Your task to perform on an android device: toggle priority inbox in the gmail app Image 0: 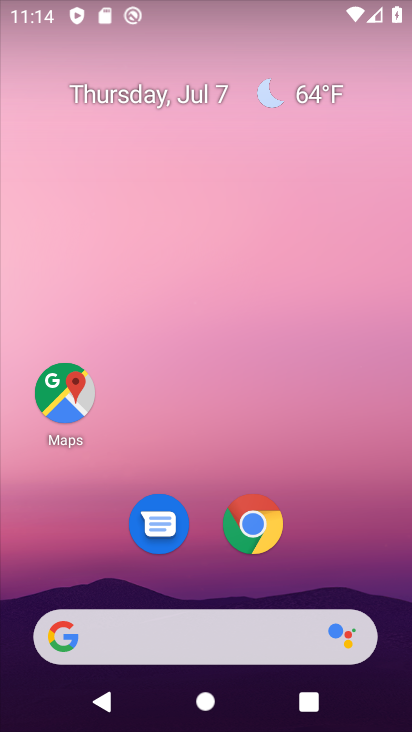
Step 0: drag from (191, 459) to (220, 8)
Your task to perform on an android device: toggle priority inbox in the gmail app Image 1: 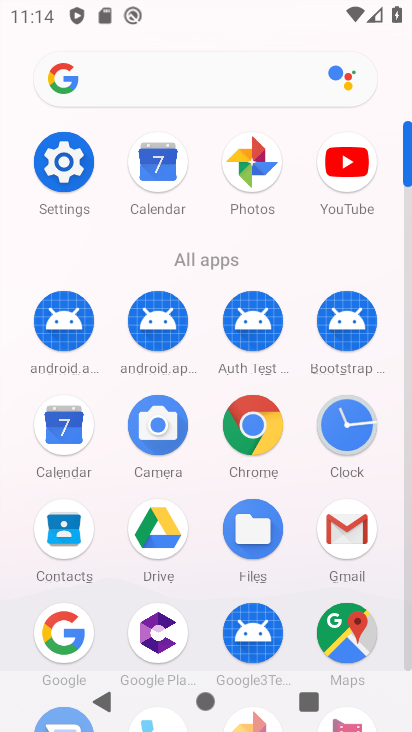
Step 1: click (339, 520)
Your task to perform on an android device: toggle priority inbox in the gmail app Image 2: 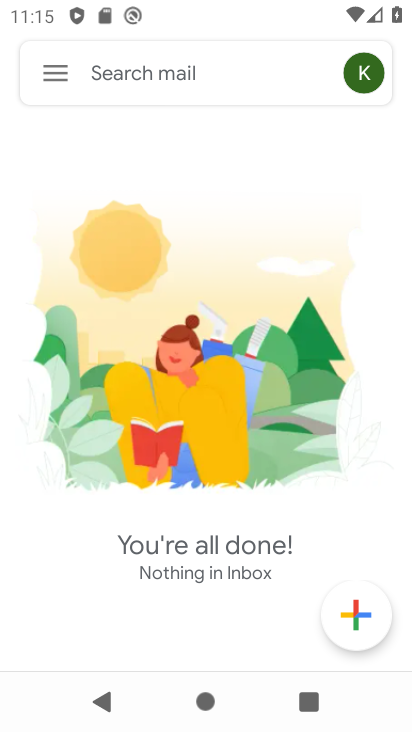
Step 2: click (52, 80)
Your task to perform on an android device: toggle priority inbox in the gmail app Image 3: 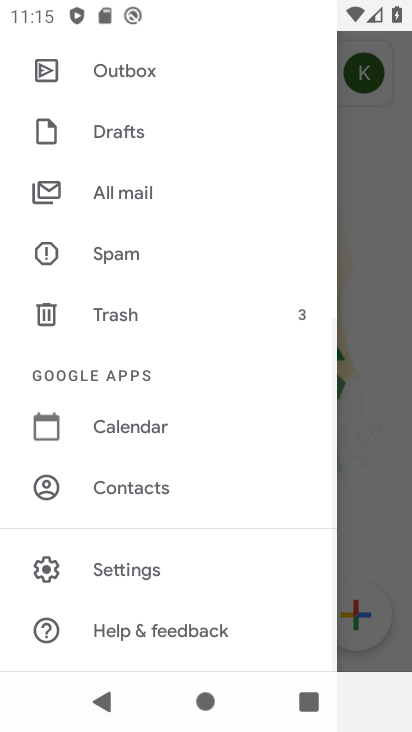
Step 3: click (127, 570)
Your task to perform on an android device: toggle priority inbox in the gmail app Image 4: 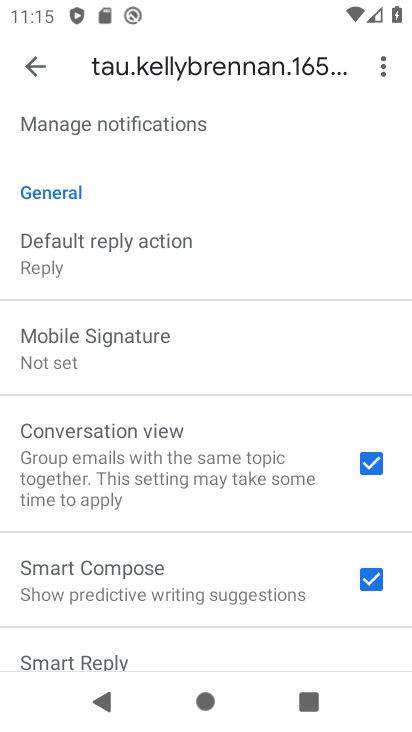
Step 4: click (35, 60)
Your task to perform on an android device: toggle priority inbox in the gmail app Image 5: 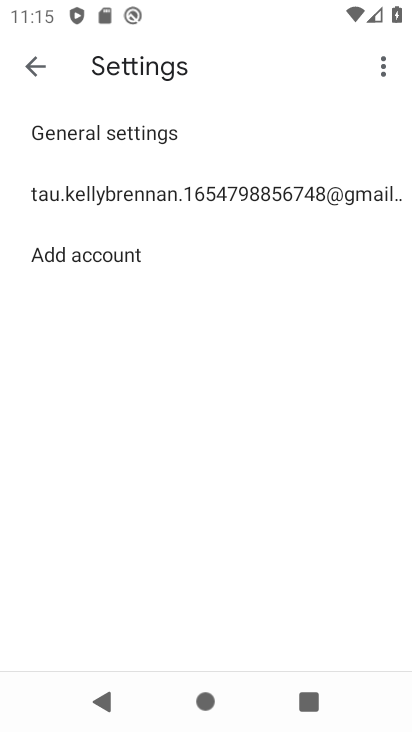
Step 5: click (132, 186)
Your task to perform on an android device: toggle priority inbox in the gmail app Image 6: 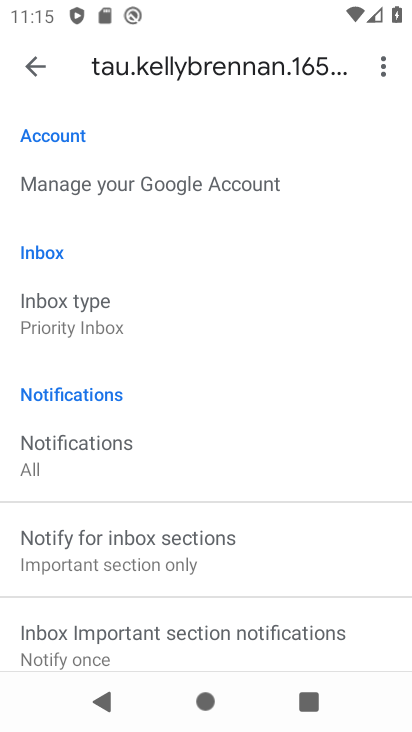
Step 6: click (70, 308)
Your task to perform on an android device: toggle priority inbox in the gmail app Image 7: 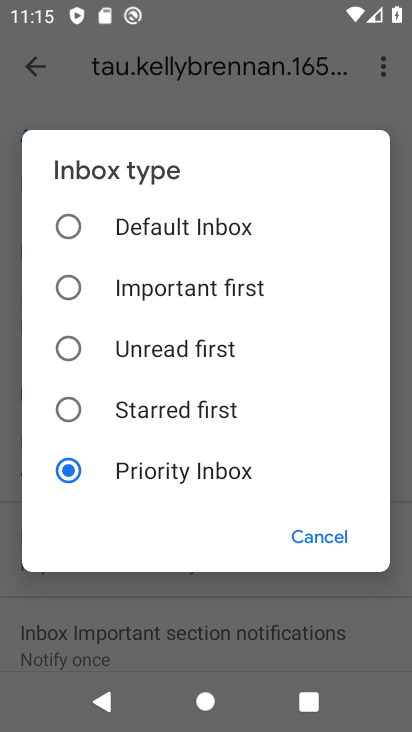
Step 7: click (65, 221)
Your task to perform on an android device: toggle priority inbox in the gmail app Image 8: 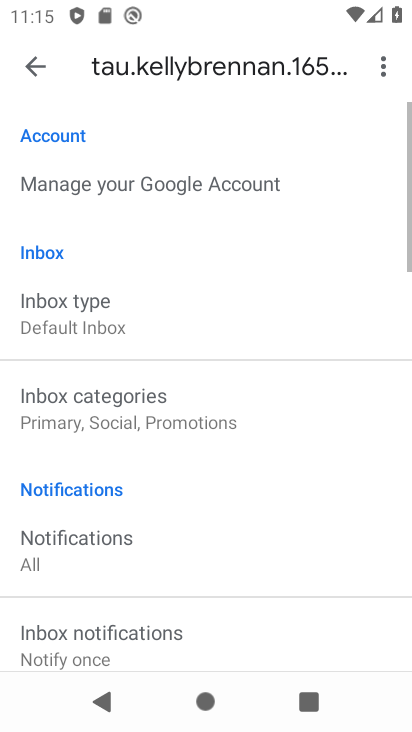
Step 8: task complete